Your task to perform on an android device: Toggle the flashlight Image 0: 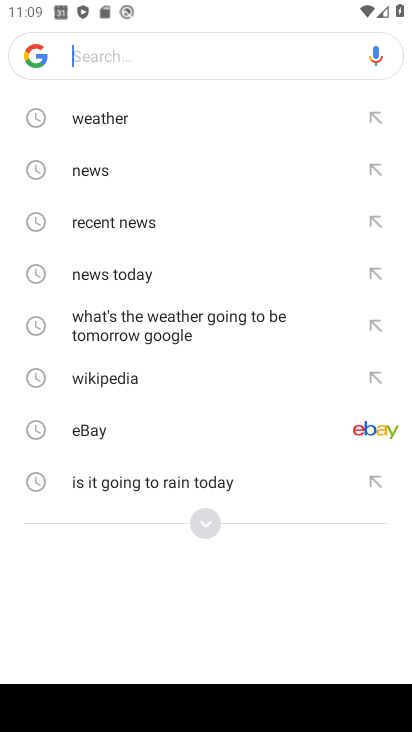
Step 0: press home button
Your task to perform on an android device: Toggle the flashlight Image 1: 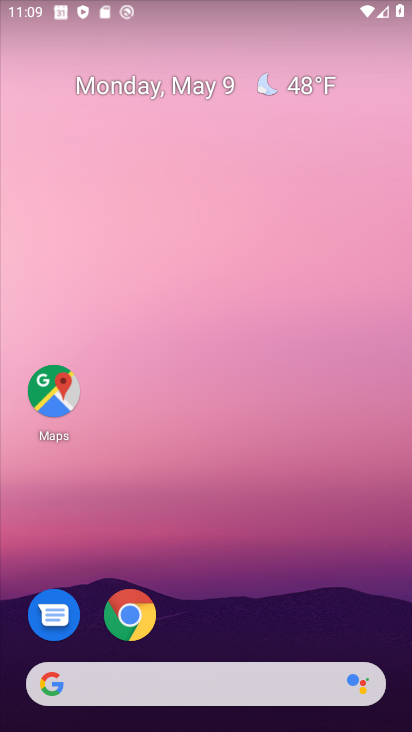
Step 1: task complete